Your task to perform on an android device: Search for "logitech g pro" on walmart.com, select the first entry, and add it to the cart. Image 0: 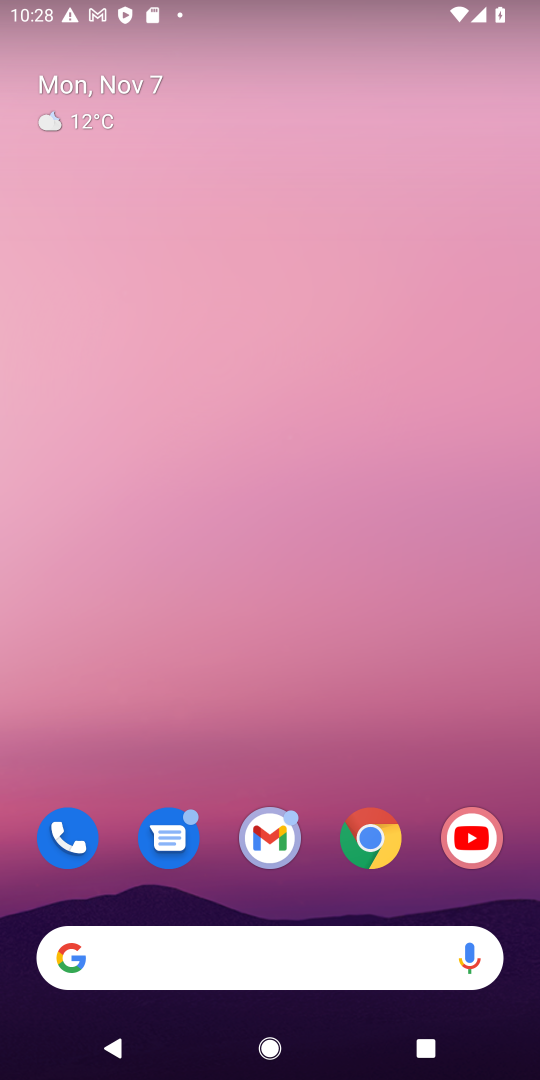
Step 0: click (368, 859)
Your task to perform on an android device: Search for "logitech g pro" on walmart.com, select the first entry, and add it to the cart. Image 1: 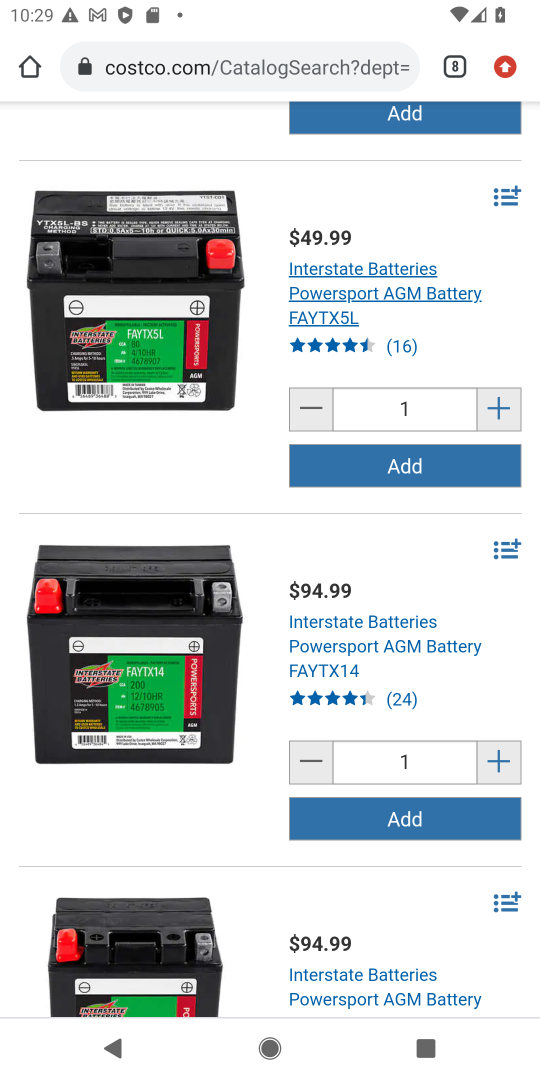
Step 1: click (465, 65)
Your task to perform on an android device: Search for "logitech g pro" on walmart.com, select the first entry, and add it to the cart. Image 2: 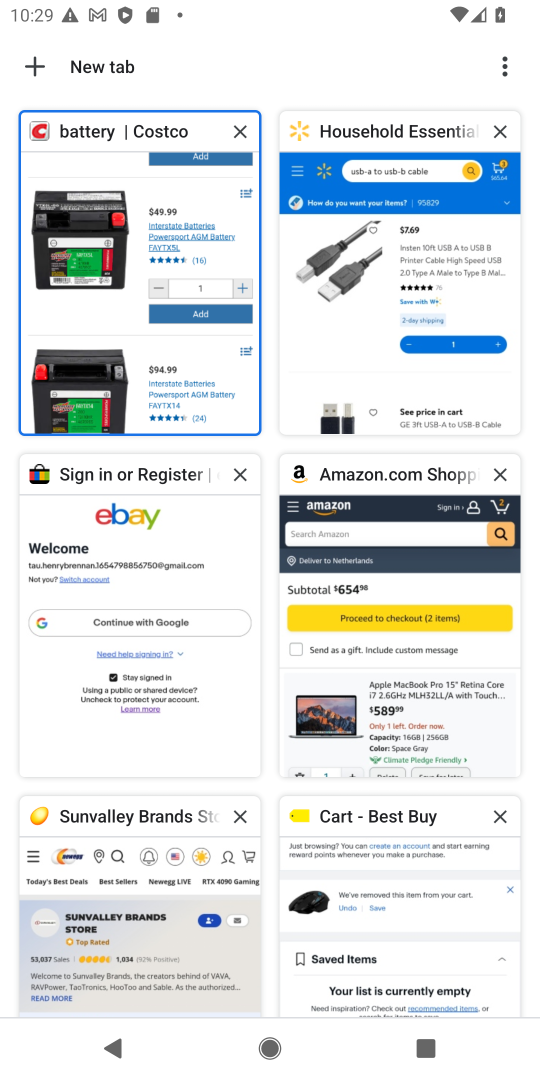
Step 2: click (400, 245)
Your task to perform on an android device: Search for "logitech g pro" on walmart.com, select the first entry, and add it to the cart. Image 3: 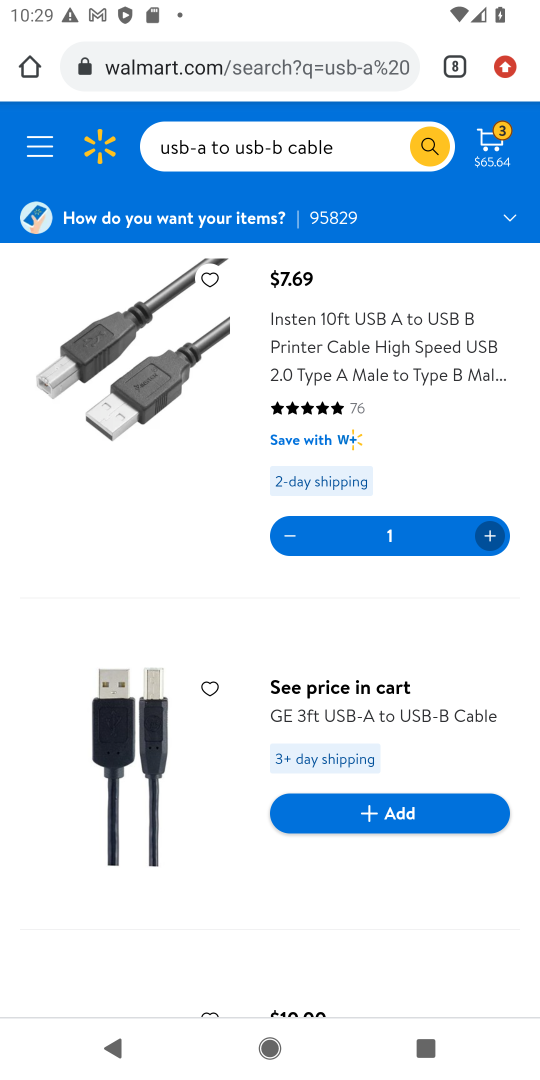
Step 3: click (316, 142)
Your task to perform on an android device: Search for "logitech g pro" on walmart.com, select the first entry, and add it to the cart. Image 4: 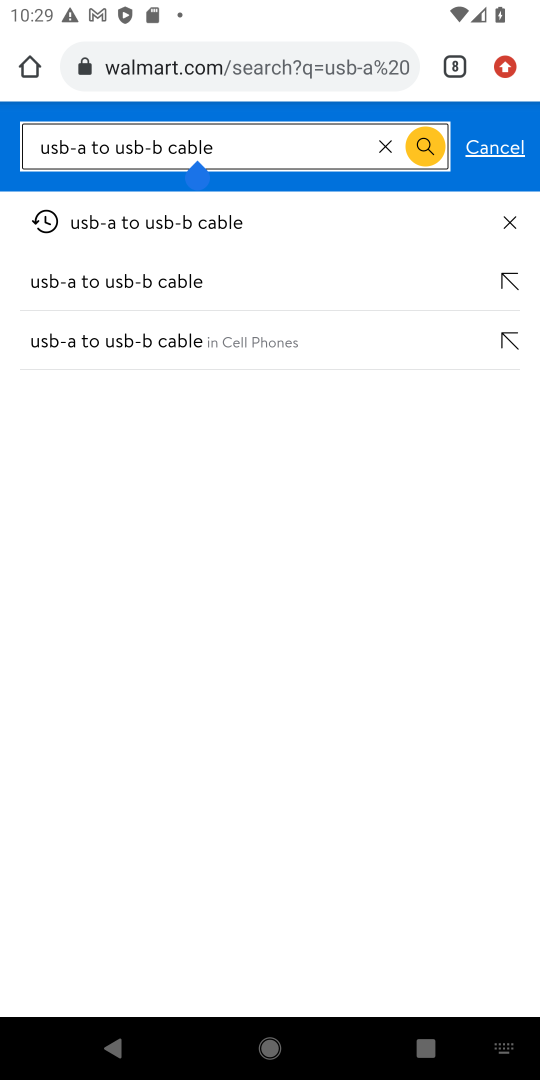
Step 4: click (384, 146)
Your task to perform on an android device: Search for "logitech g pro" on walmart.com, select the first entry, and add it to the cart. Image 5: 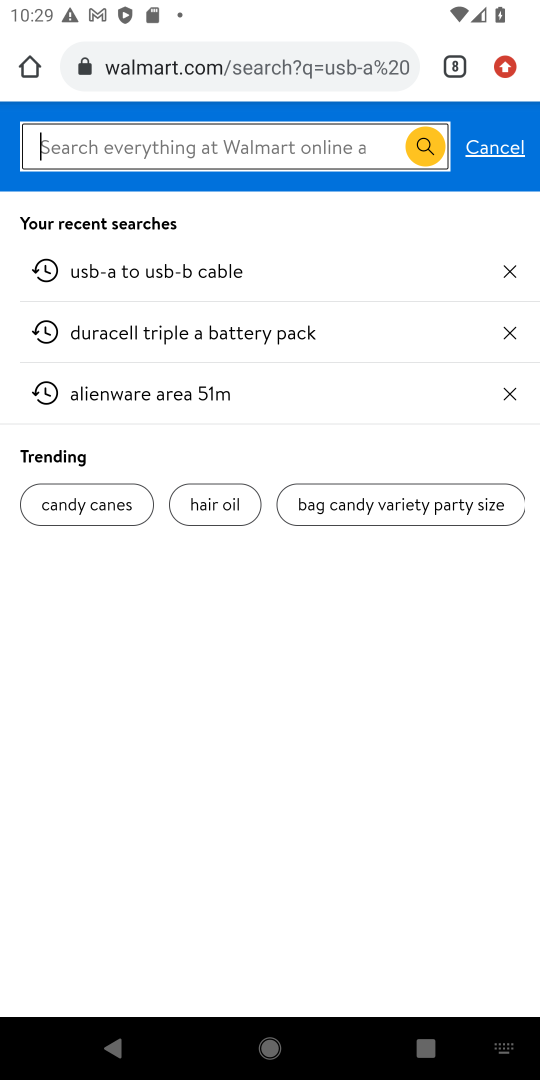
Step 5: type "logitech g pro"
Your task to perform on an android device: Search for "logitech g pro" on walmart.com, select the first entry, and add it to the cart. Image 6: 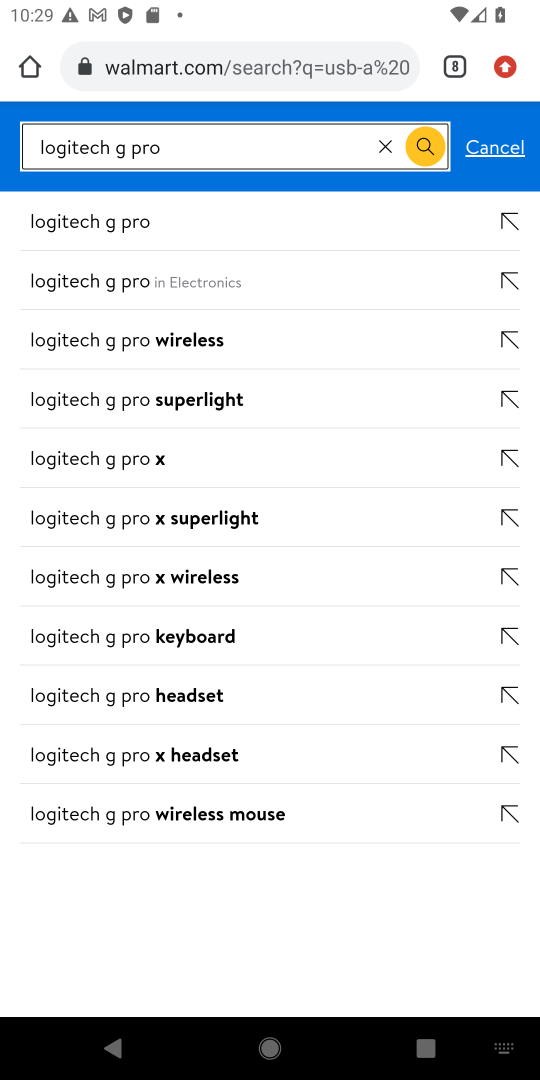
Step 6: click (124, 280)
Your task to perform on an android device: Search for "logitech g pro" on walmart.com, select the first entry, and add it to the cart. Image 7: 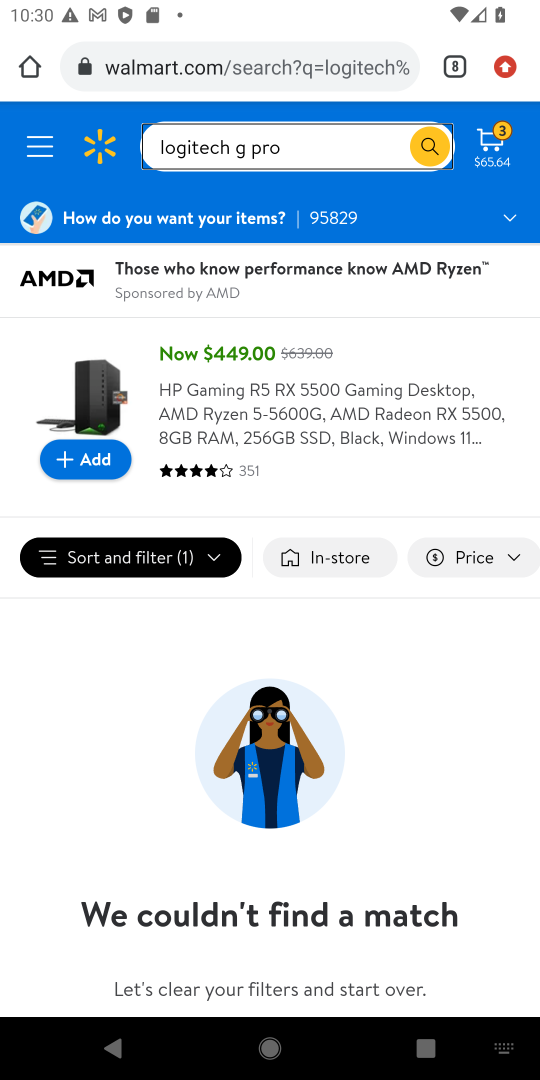
Step 7: click (432, 148)
Your task to perform on an android device: Search for "logitech g pro" on walmart.com, select the first entry, and add it to the cart. Image 8: 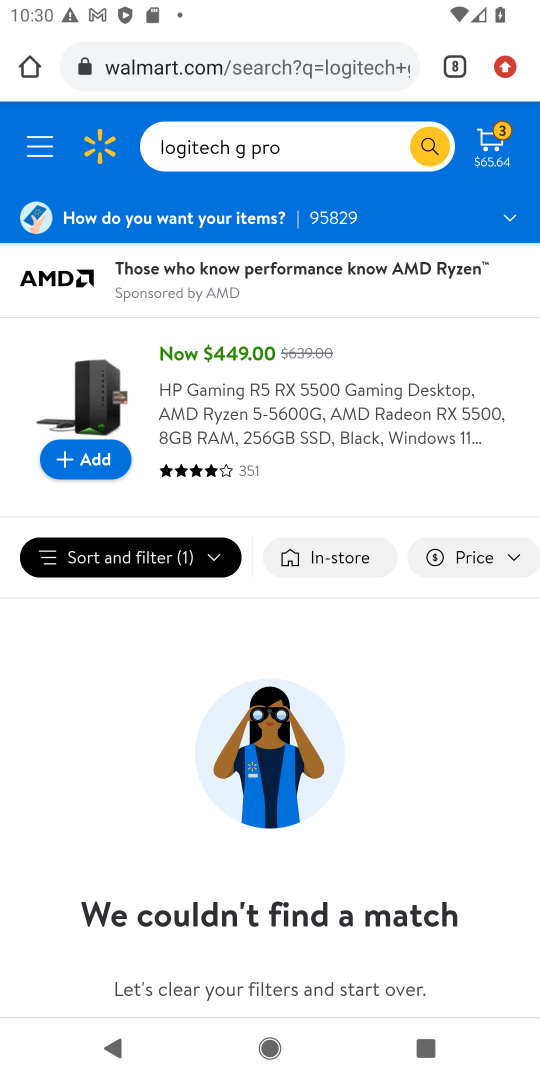
Step 8: click (327, 157)
Your task to perform on an android device: Search for "logitech g pro" on walmart.com, select the first entry, and add it to the cart. Image 9: 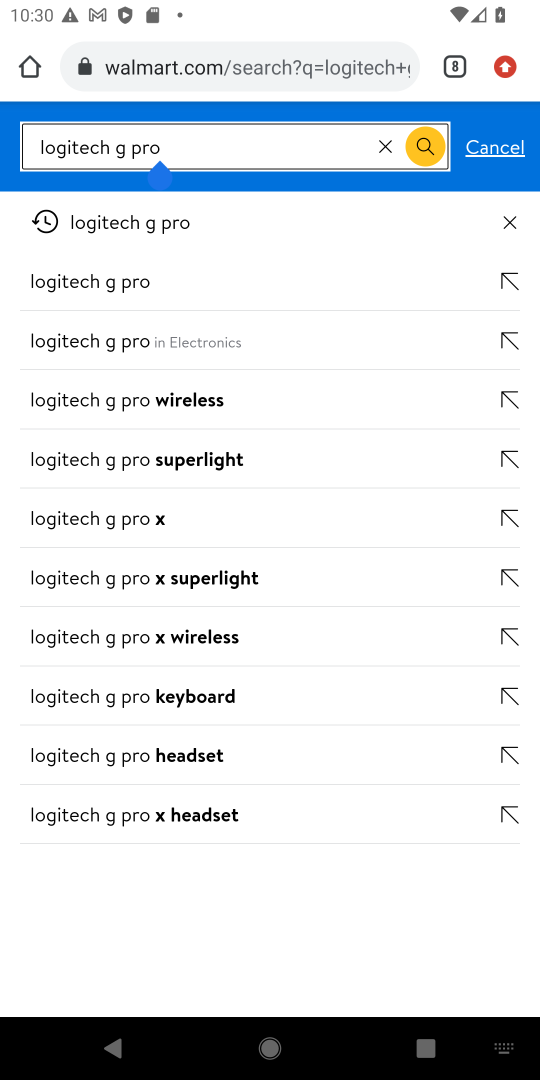
Step 9: click (137, 401)
Your task to perform on an android device: Search for "logitech g pro" on walmart.com, select the first entry, and add it to the cart. Image 10: 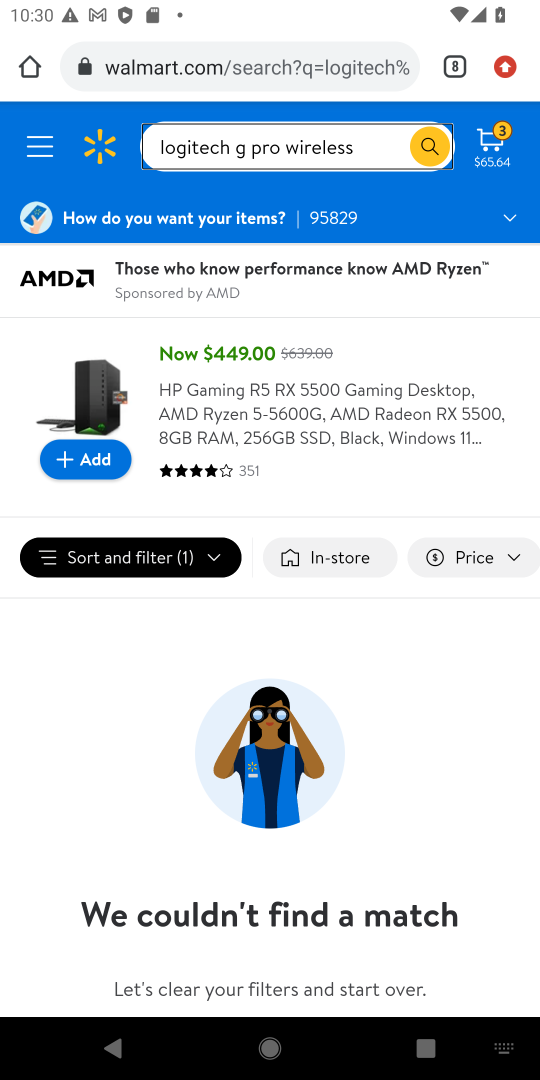
Step 10: click (336, 154)
Your task to perform on an android device: Search for "logitech g pro" on walmart.com, select the first entry, and add it to the cart. Image 11: 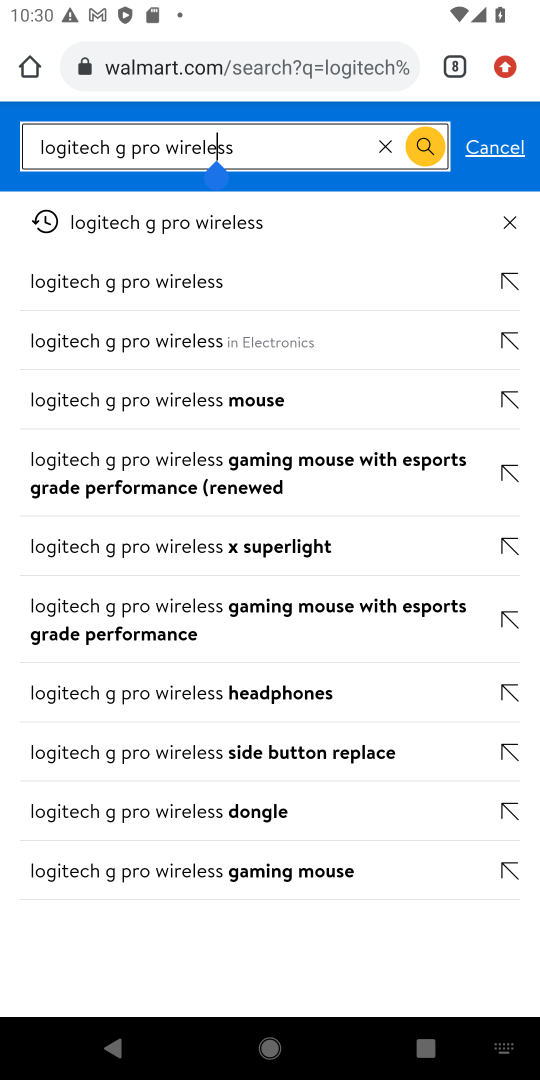
Step 11: click (213, 401)
Your task to perform on an android device: Search for "logitech g pro" on walmart.com, select the first entry, and add it to the cart. Image 12: 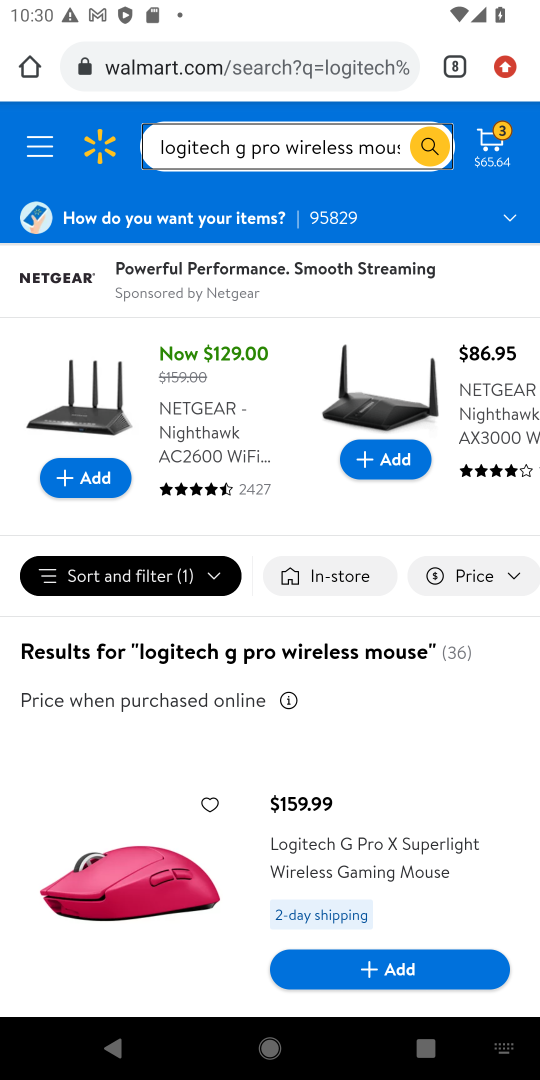
Step 12: click (391, 954)
Your task to perform on an android device: Search for "logitech g pro" on walmart.com, select the first entry, and add it to the cart. Image 13: 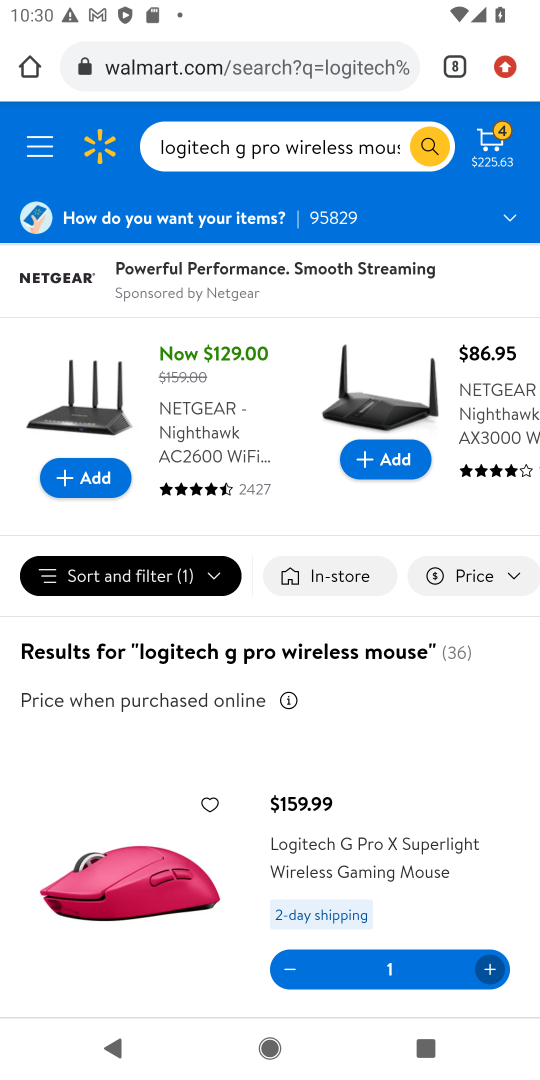
Step 13: task complete